Your task to perform on an android device: delete location history Image 0: 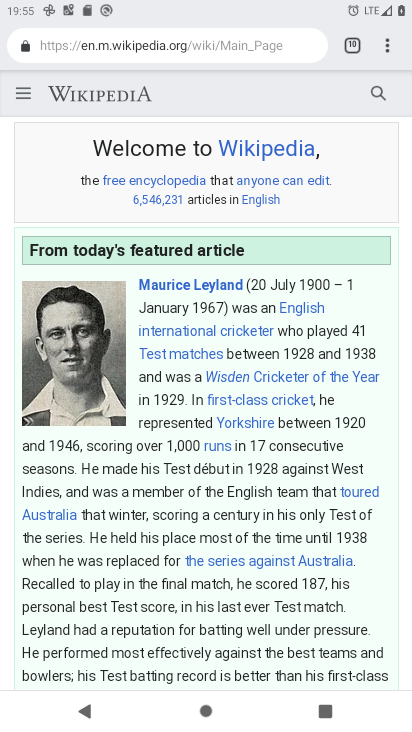
Step 0: press home button
Your task to perform on an android device: delete location history Image 1: 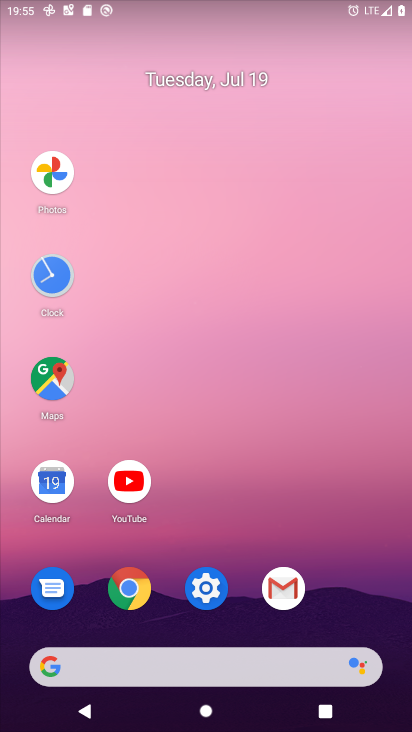
Step 1: click (48, 376)
Your task to perform on an android device: delete location history Image 2: 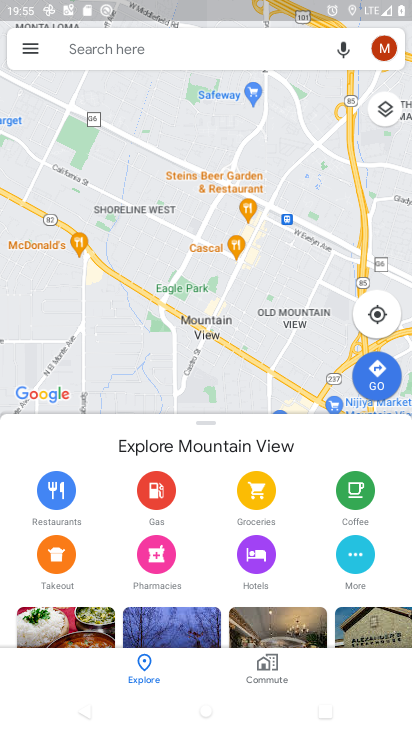
Step 2: click (28, 42)
Your task to perform on an android device: delete location history Image 3: 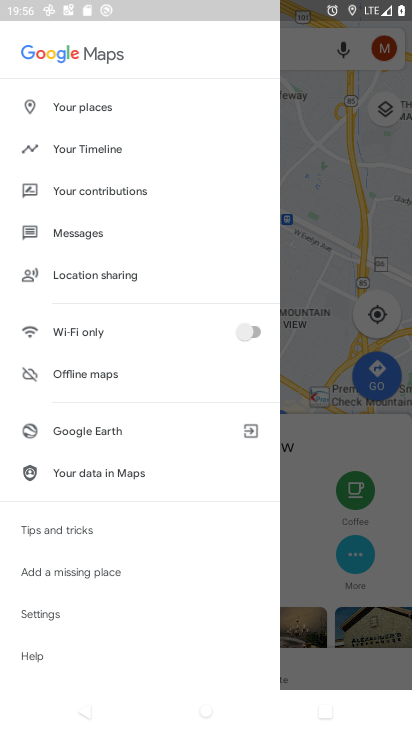
Step 3: click (73, 141)
Your task to perform on an android device: delete location history Image 4: 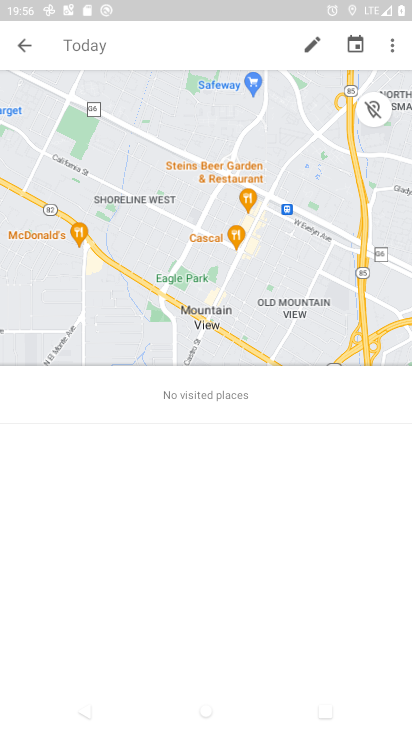
Step 4: click (392, 45)
Your task to perform on an android device: delete location history Image 5: 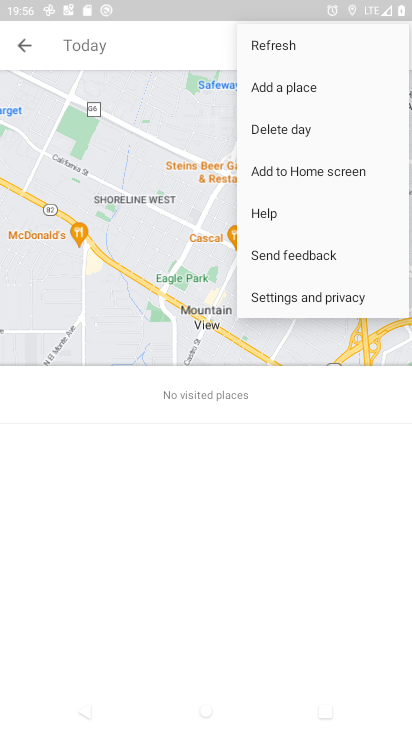
Step 5: click (324, 295)
Your task to perform on an android device: delete location history Image 6: 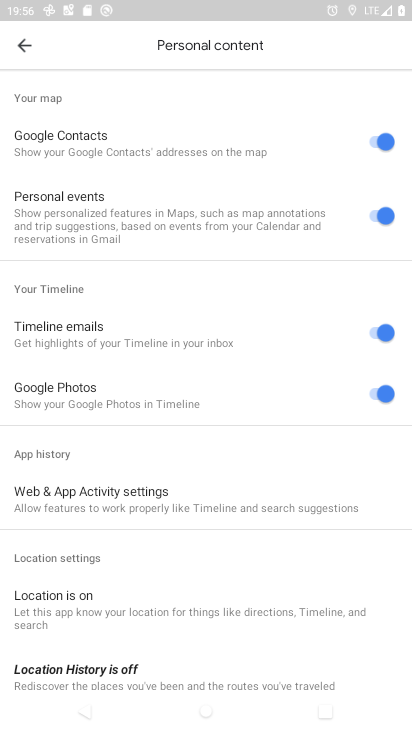
Step 6: drag from (167, 651) to (165, 349)
Your task to perform on an android device: delete location history Image 7: 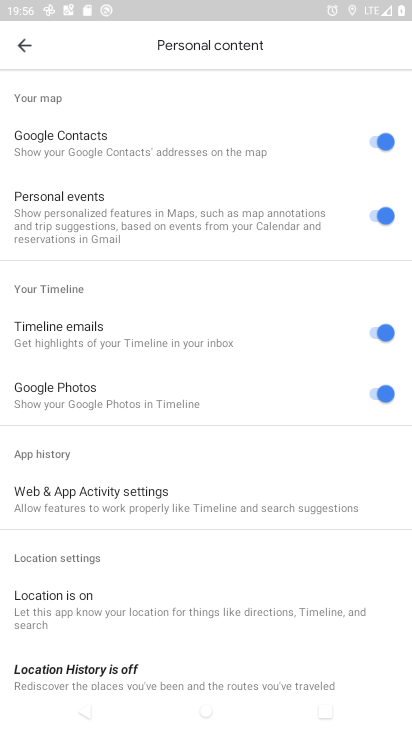
Step 7: drag from (187, 609) to (180, 348)
Your task to perform on an android device: delete location history Image 8: 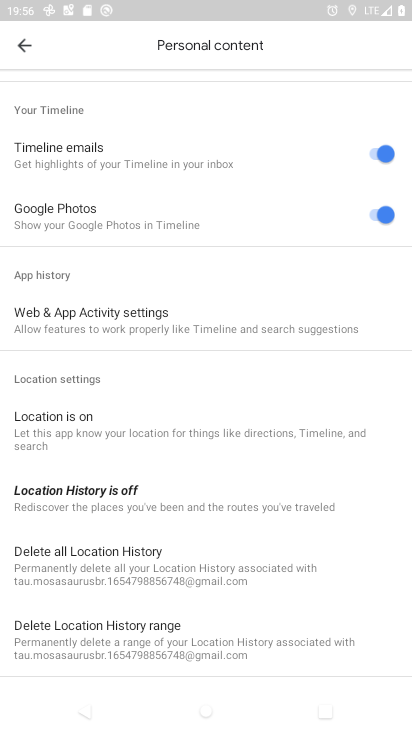
Step 8: click (79, 552)
Your task to perform on an android device: delete location history Image 9: 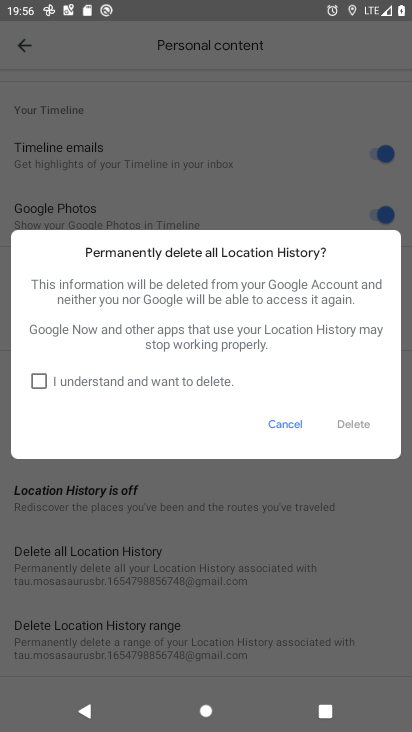
Step 9: click (33, 382)
Your task to perform on an android device: delete location history Image 10: 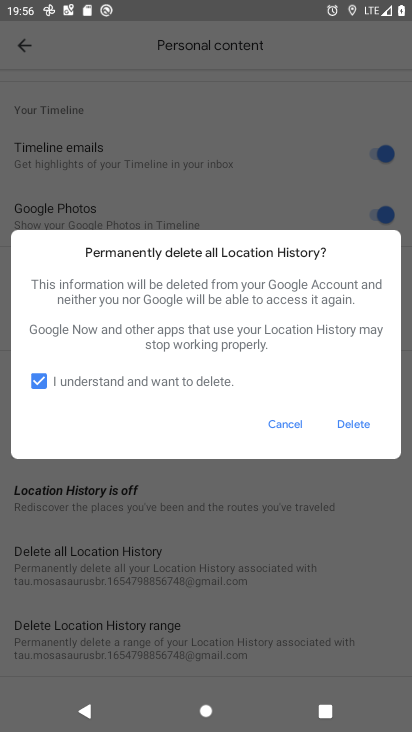
Step 10: click (351, 419)
Your task to perform on an android device: delete location history Image 11: 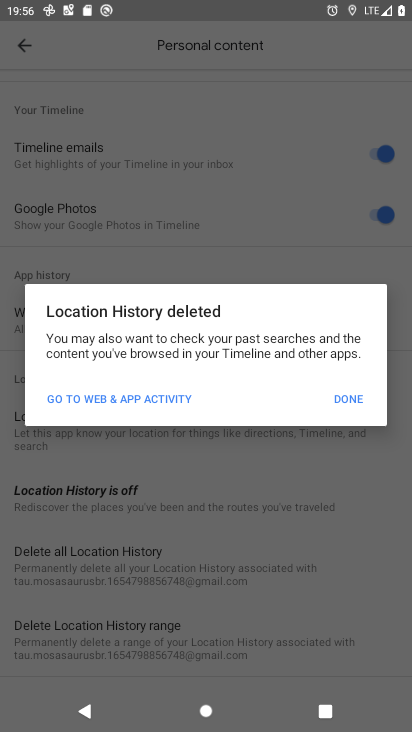
Step 11: click (348, 397)
Your task to perform on an android device: delete location history Image 12: 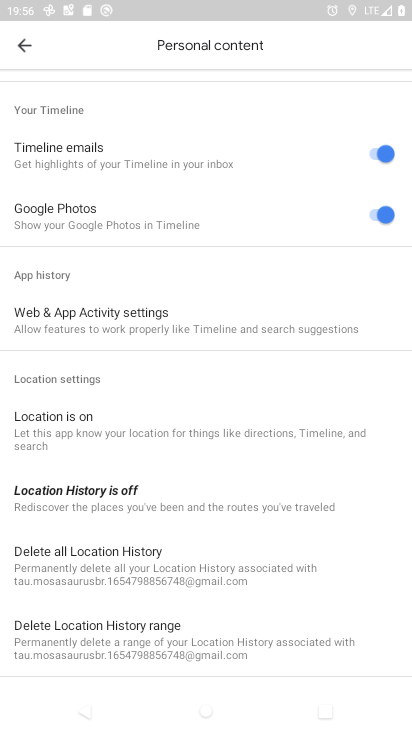
Step 12: task complete